Your task to perform on an android device: Open network settings Image 0: 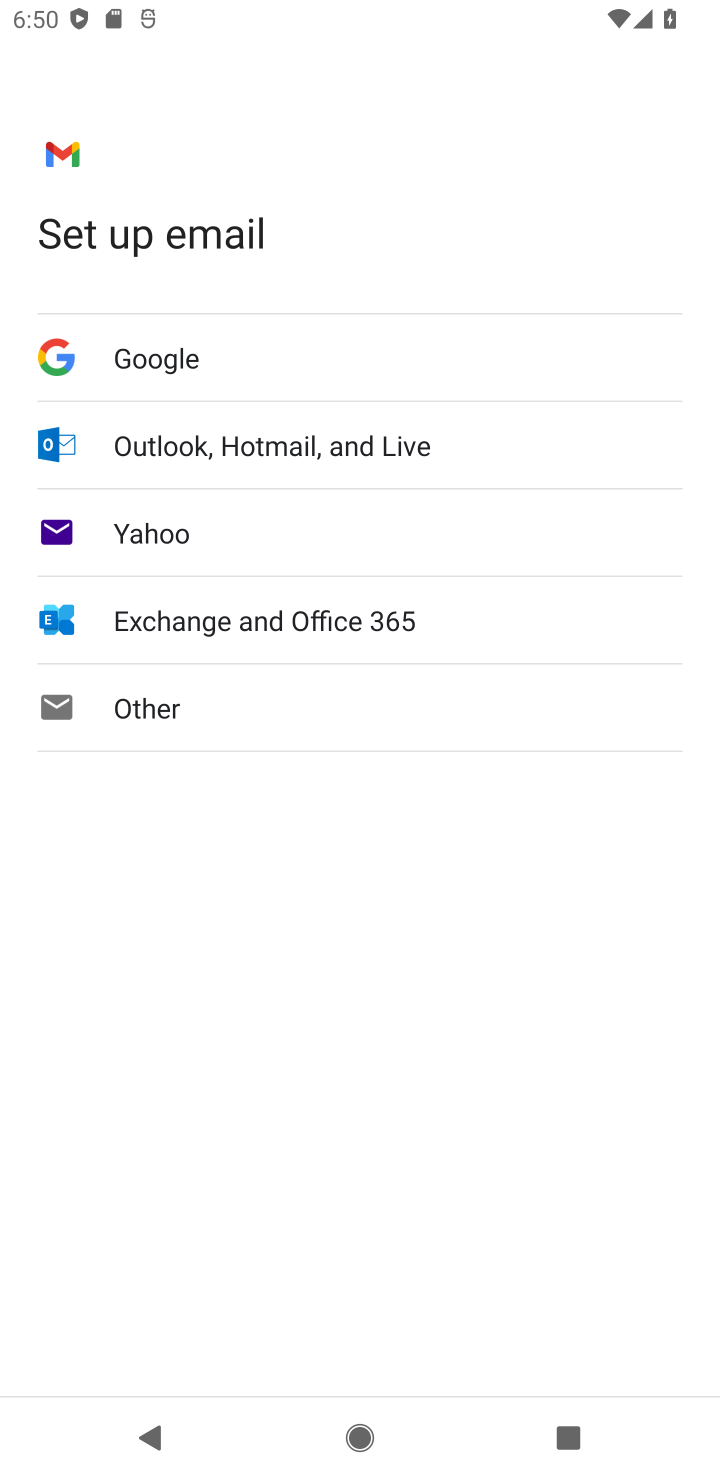
Step 0: press home button
Your task to perform on an android device: Open network settings Image 1: 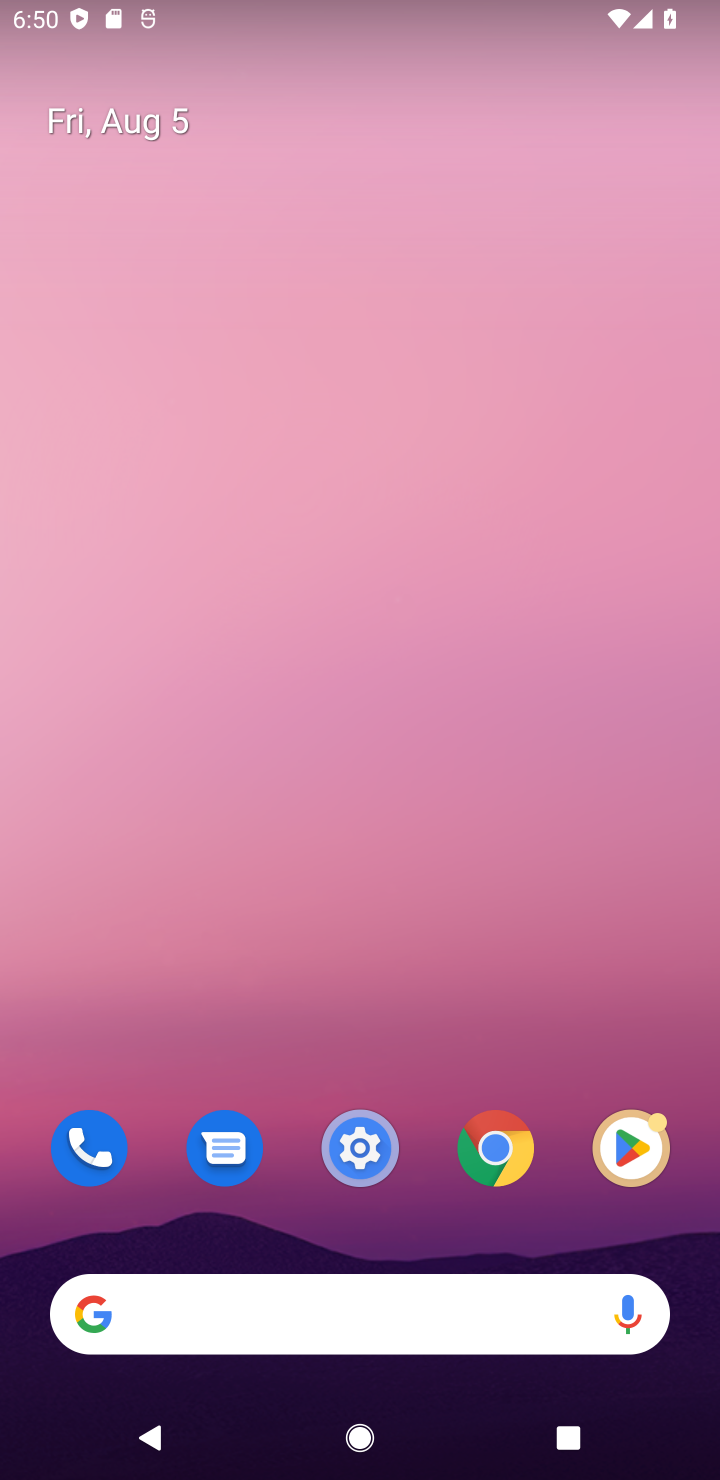
Step 1: click (393, 1151)
Your task to perform on an android device: Open network settings Image 2: 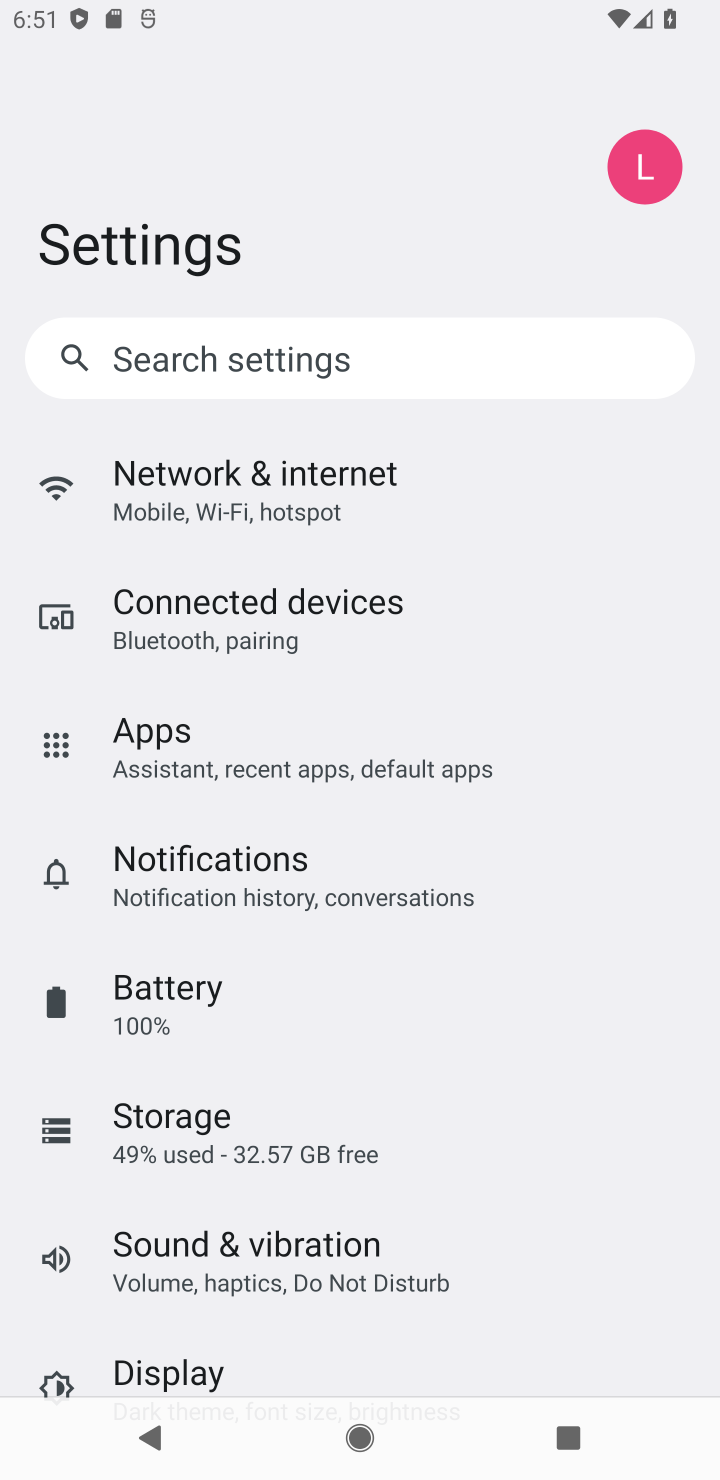
Step 2: click (299, 506)
Your task to perform on an android device: Open network settings Image 3: 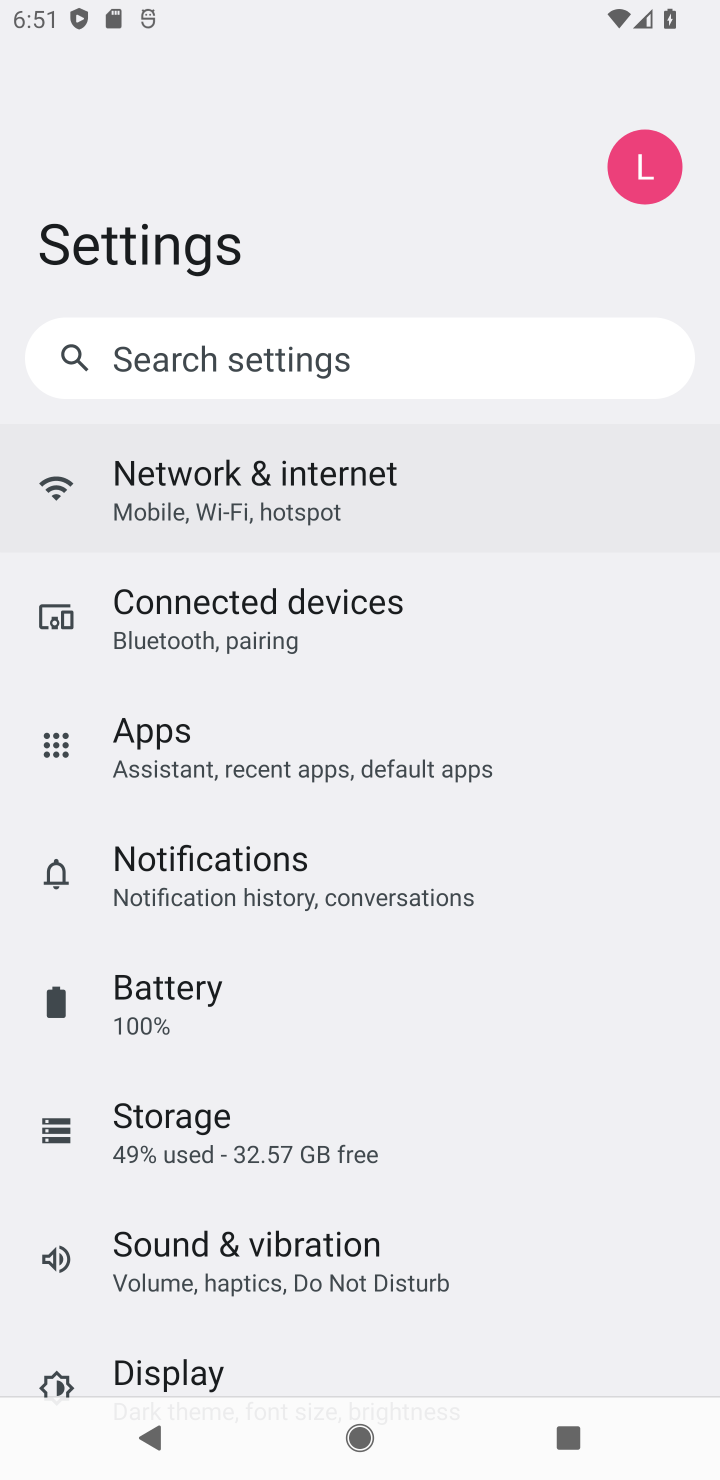
Step 3: task complete